Your task to perform on an android device: toggle airplane mode Image 0: 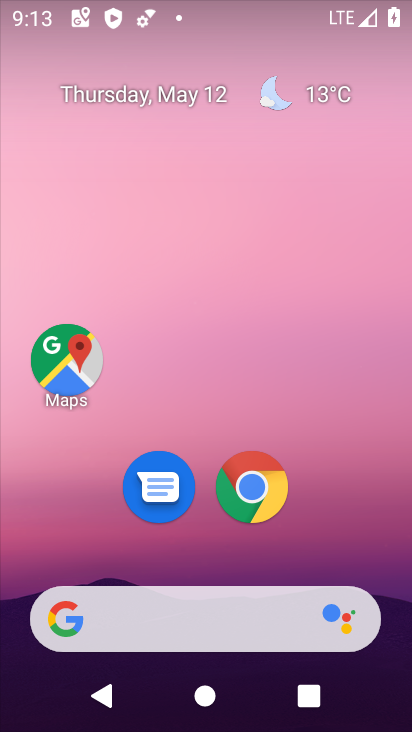
Step 0: drag from (346, 554) to (266, 36)
Your task to perform on an android device: toggle airplane mode Image 1: 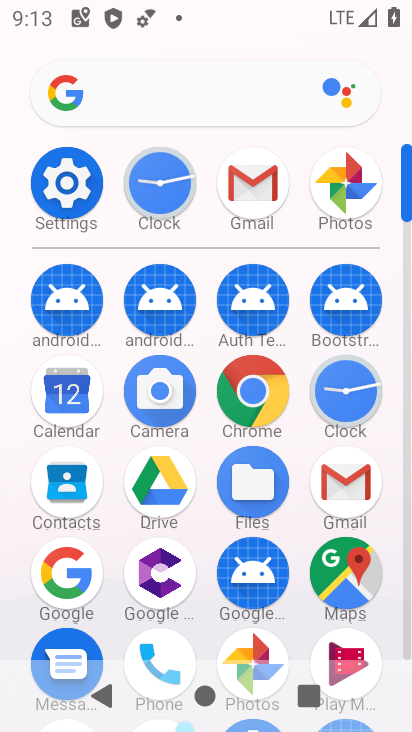
Step 1: click (55, 186)
Your task to perform on an android device: toggle airplane mode Image 2: 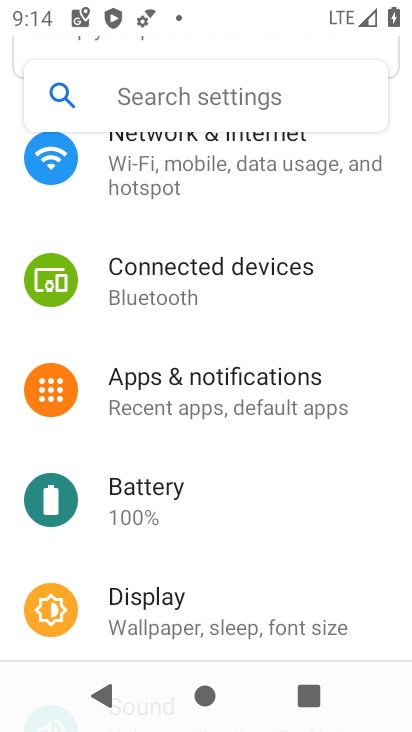
Step 2: click (204, 170)
Your task to perform on an android device: toggle airplane mode Image 3: 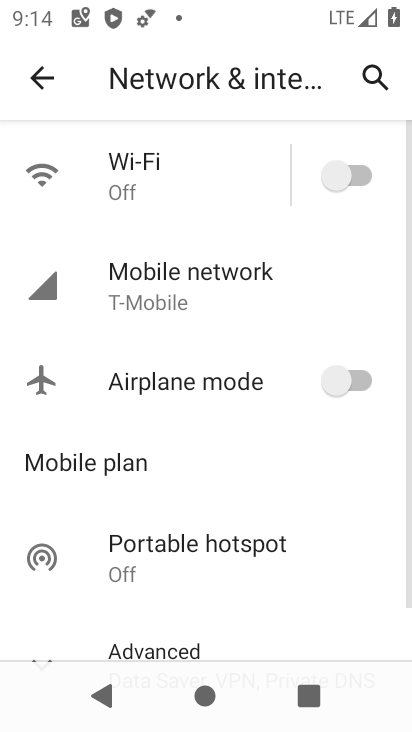
Step 3: click (351, 385)
Your task to perform on an android device: toggle airplane mode Image 4: 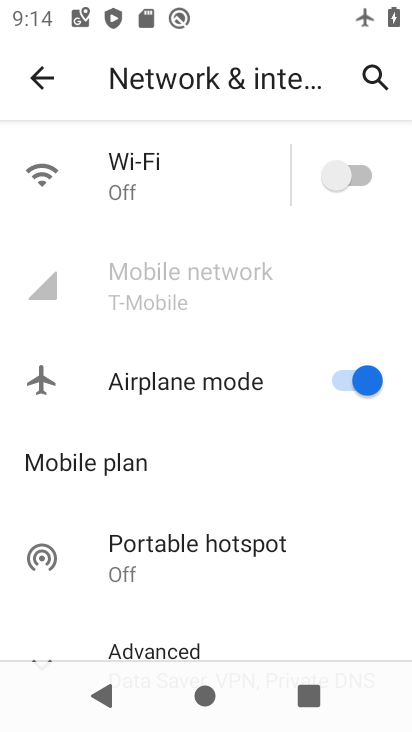
Step 4: task complete